Your task to perform on an android device: turn off translation in the chrome app Image 0: 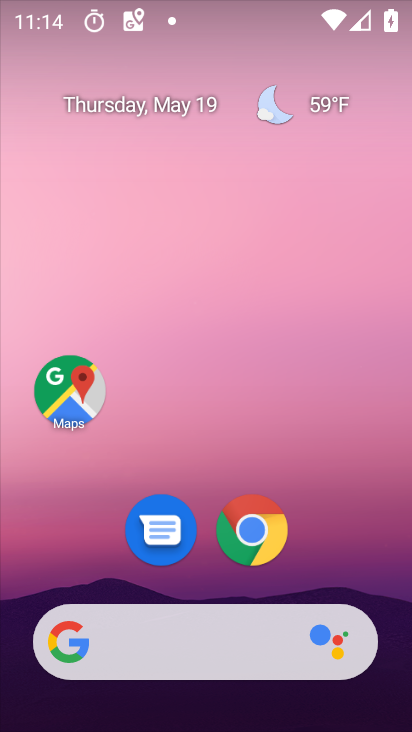
Step 0: drag from (354, 552) to (365, 89)
Your task to perform on an android device: turn off translation in the chrome app Image 1: 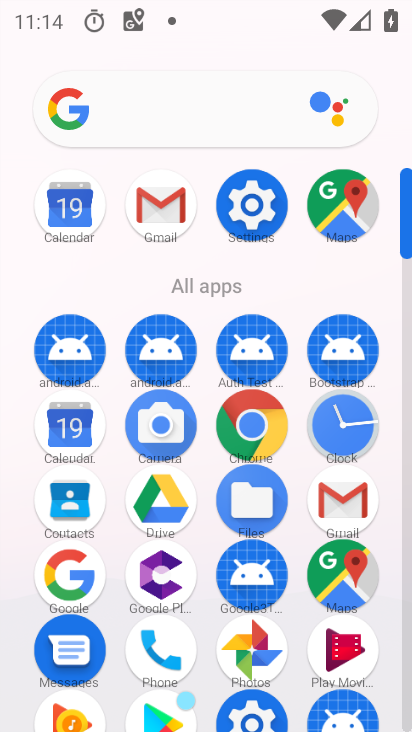
Step 1: click (224, 412)
Your task to perform on an android device: turn off translation in the chrome app Image 2: 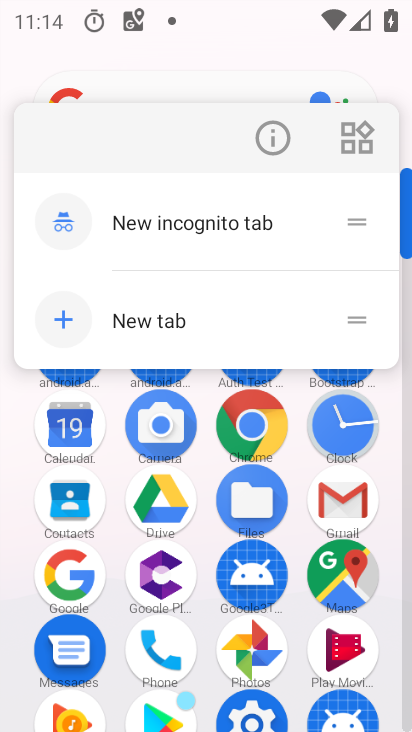
Step 2: click (251, 441)
Your task to perform on an android device: turn off translation in the chrome app Image 3: 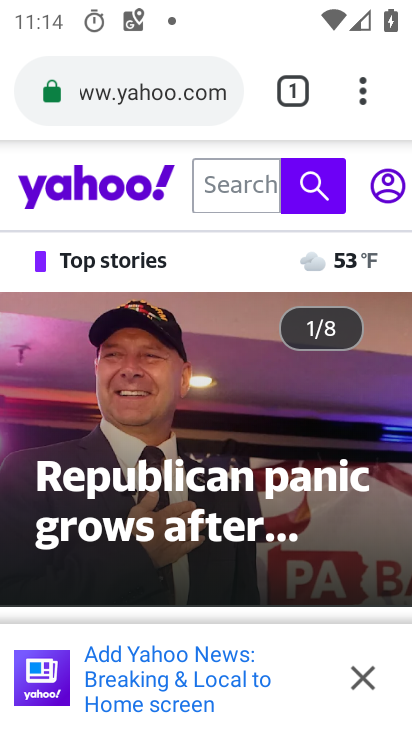
Step 3: click (353, 677)
Your task to perform on an android device: turn off translation in the chrome app Image 4: 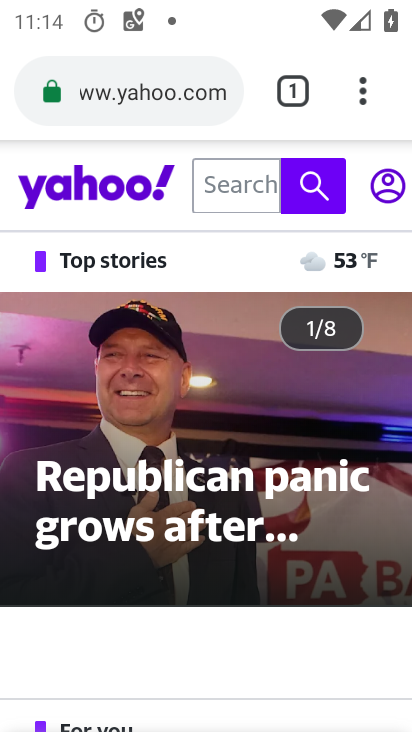
Step 4: drag from (259, 634) to (319, 328)
Your task to perform on an android device: turn off translation in the chrome app Image 5: 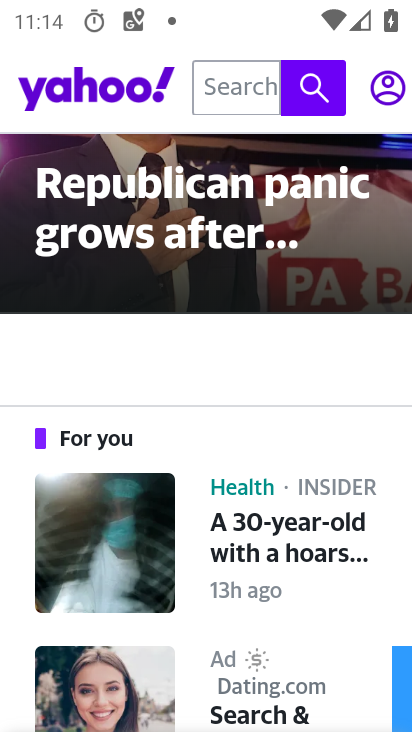
Step 5: drag from (242, 588) to (269, 306)
Your task to perform on an android device: turn off translation in the chrome app Image 6: 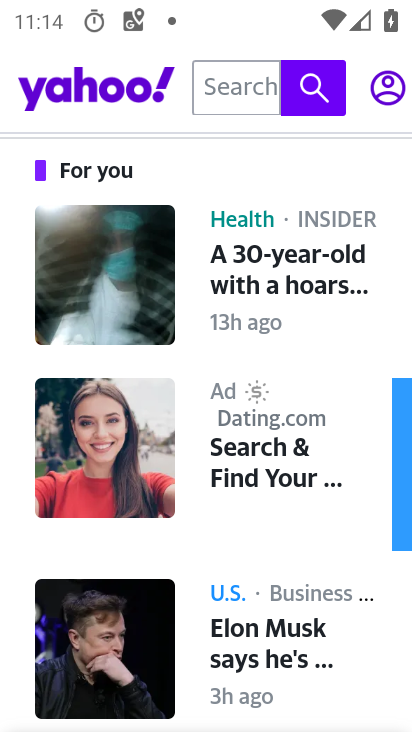
Step 6: drag from (348, 93) to (287, 629)
Your task to perform on an android device: turn off translation in the chrome app Image 7: 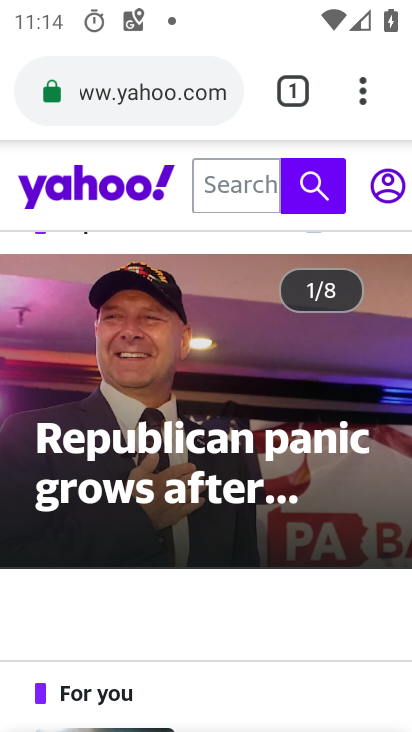
Step 7: drag from (364, 89) to (141, 562)
Your task to perform on an android device: turn off translation in the chrome app Image 8: 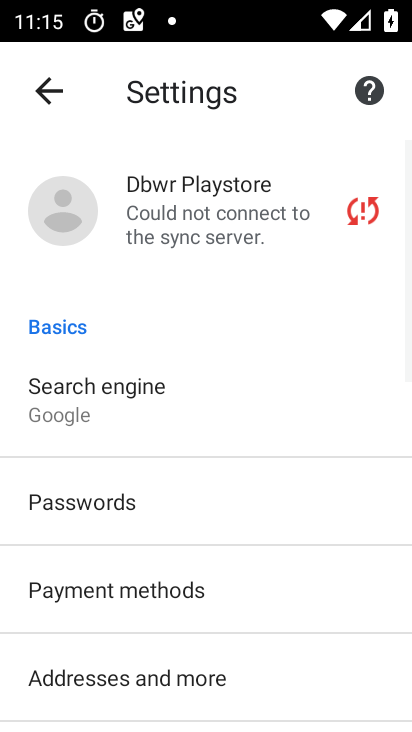
Step 8: drag from (239, 662) to (257, 343)
Your task to perform on an android device: turn off translation in the chrome app Image 9: 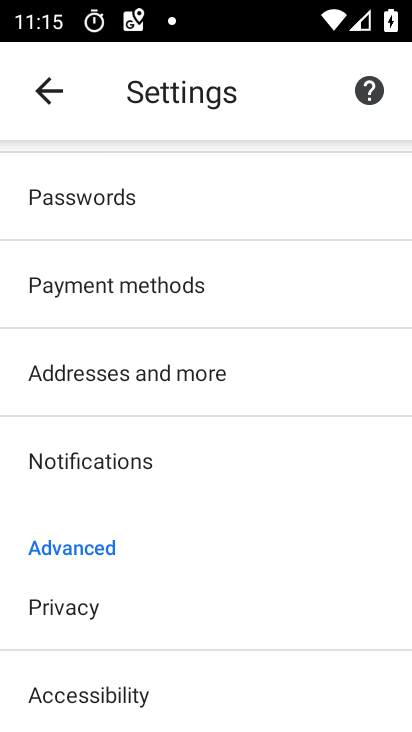
Step 9: drag from (243, 646) to (279, 282)
Your task to perform on an android device: turn off translation in the chrome app Image 10: 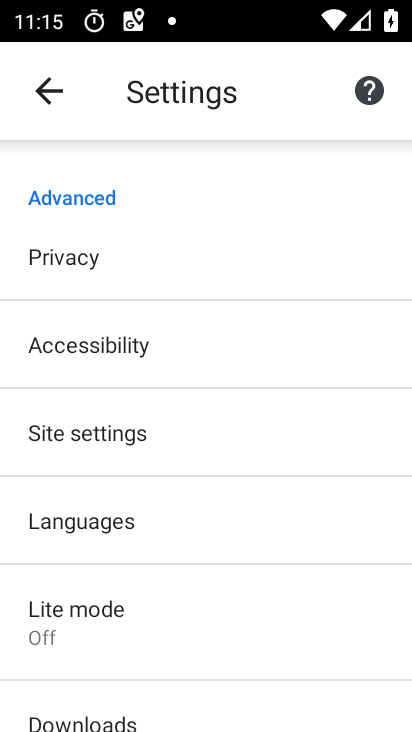
Step 10: click (167, 535)
Your task to perform on an android device: turn off translation in the chrome app Image 11: 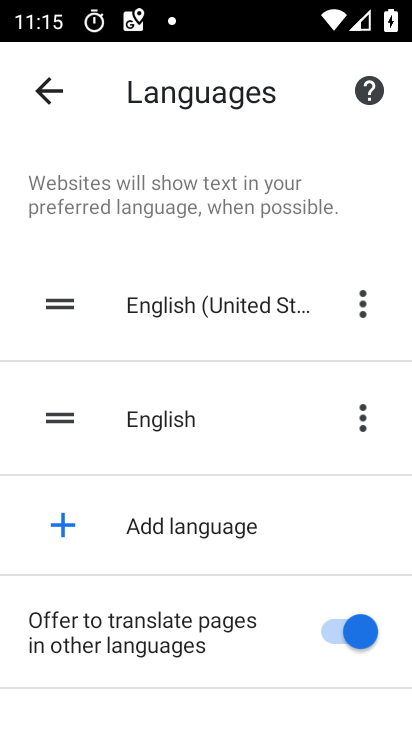
Step 11: click (345, 639)
Your task to perform on an android device: turn off translation in the chrome app Image 12: 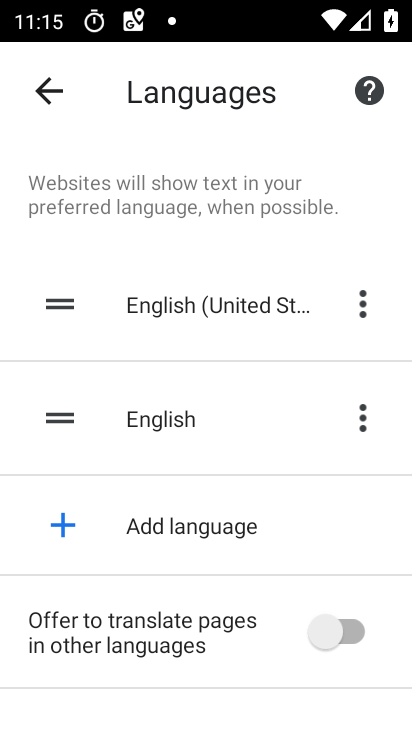
Step 12: task complete